Your task to perform on an android device: Go to Wikipedia Image 0: 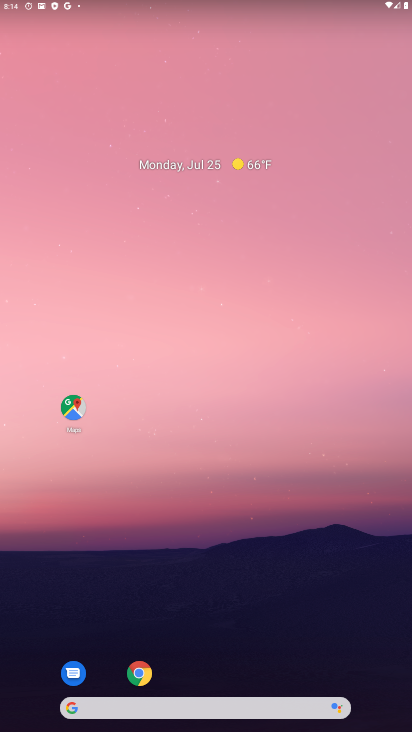
Step 0: drag from (276, 329) to (314, 240)
Your task to perform on an android device: Go to Wikipedia Image 1: 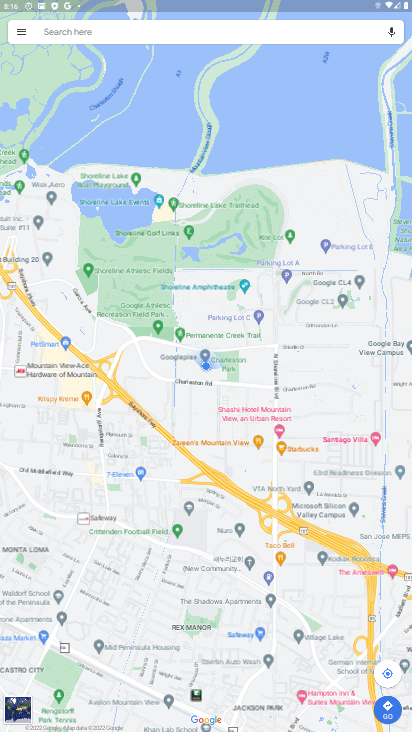
Step 1: drag from (276, 346) to (285, 698)
Your task to perform on an android device: Go to Wikipedia Image 2: 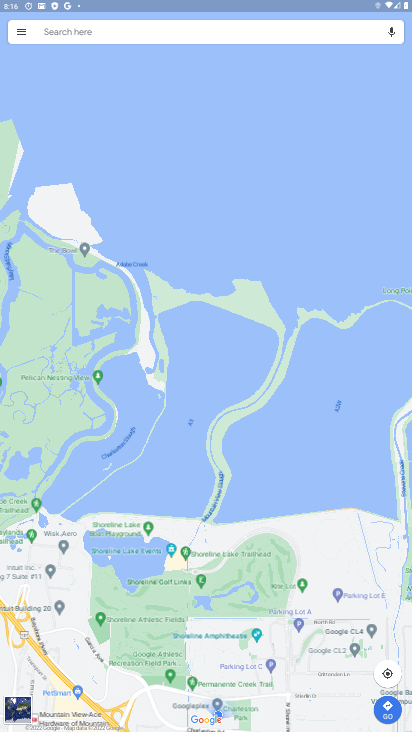
Step 2: press home button
Your task to perform on an android device: Go to Wikipedia Image 3: 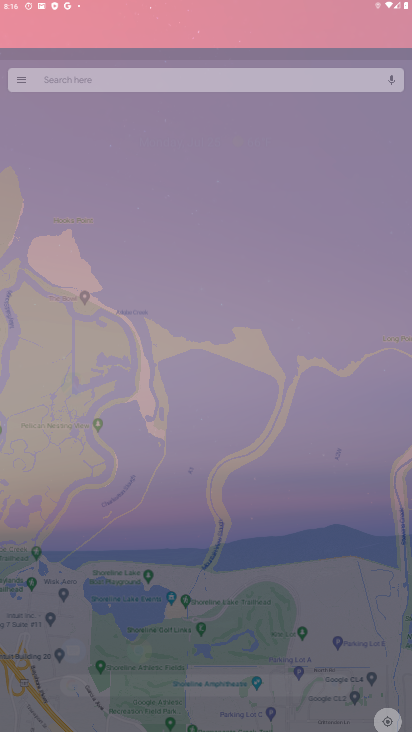
Step 3: drag from (123, 662) to (357, 1)
Your task to perform on an android device: Go to Wikipedia Image 4: 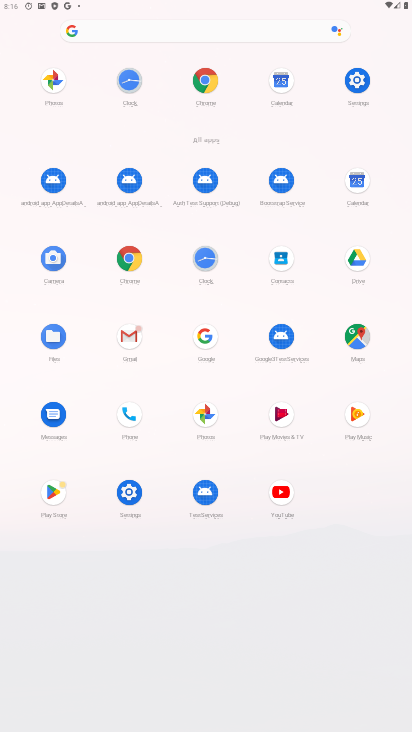
Step 4: click (138, 33)
Your task to perform on an android device: Go to Wikipedia Image 5: 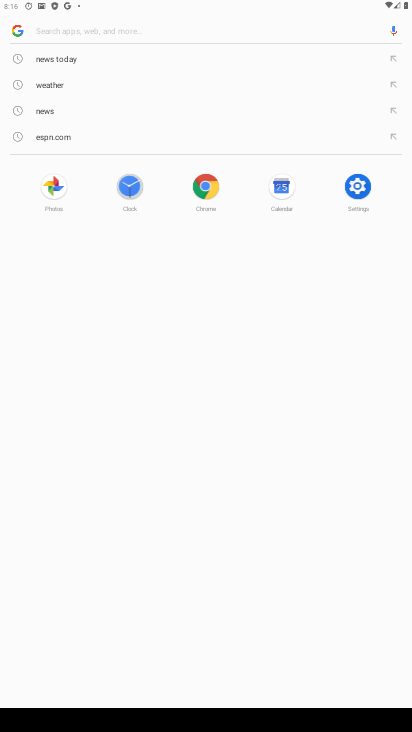
Step 5: drag from (246, 594) to (224, 256)
Your task to perform on an android device: Go to Wikipedia Image 6: 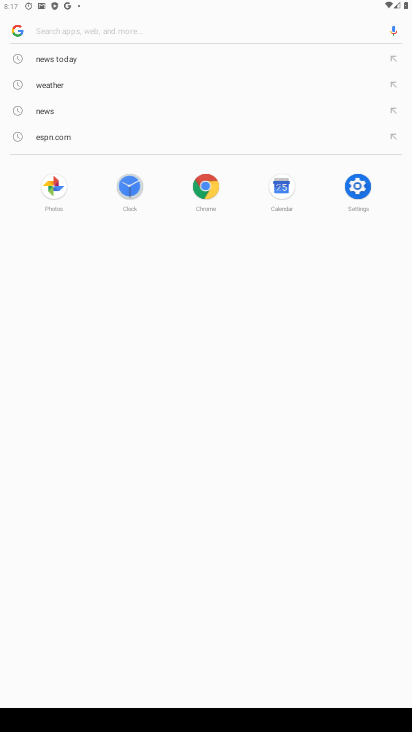
Step 6: type ""
Your task to perform on an android device: Go to Wikipedia Image 7: 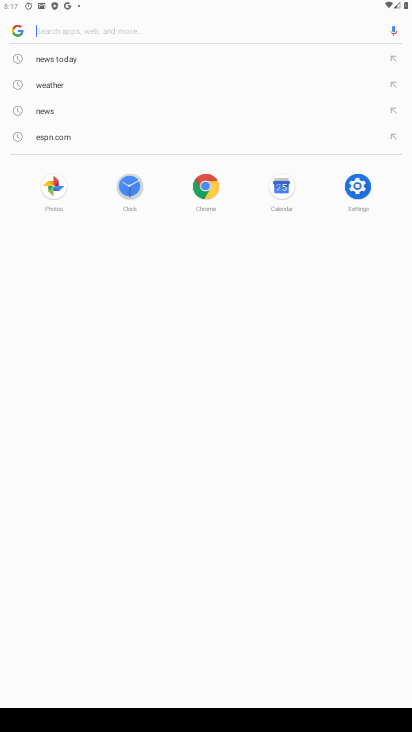
Step 7: type "Wikipedia"
Your task to perform on an android device: Go to Wikipedia Image 8: 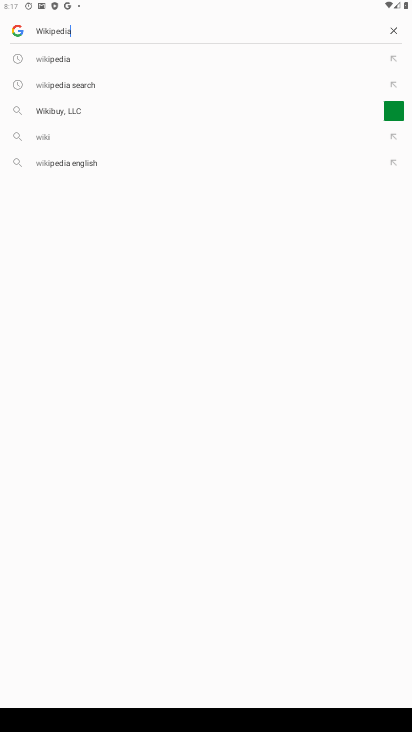
Step 8: type ""
Your task to perform on an android device: Go to Wikipedia Image 9: 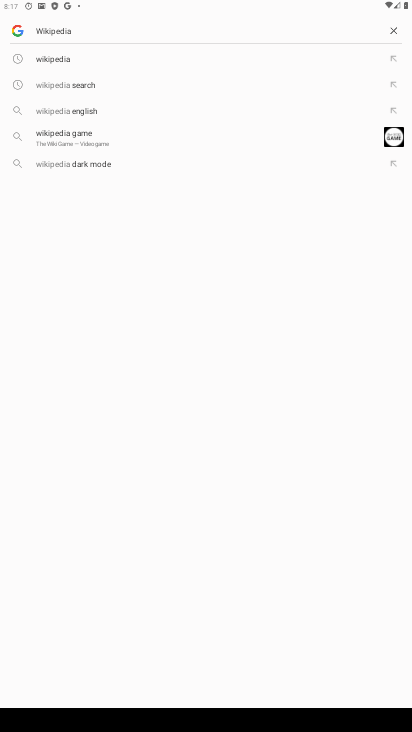
Step 9: click (54, 61)
Your task to perform on an android device: Go to Wikipedia Image 10: 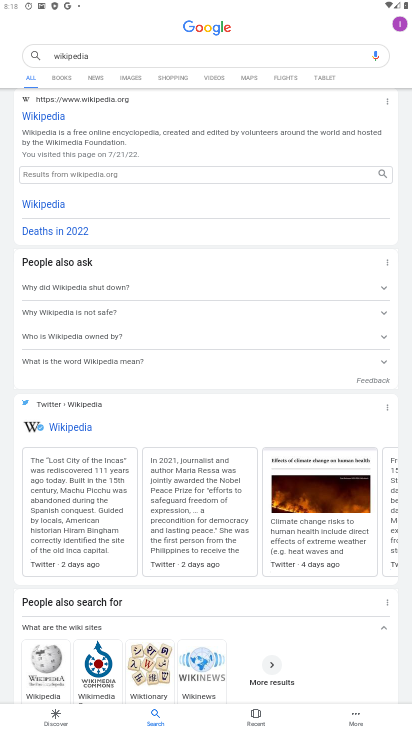
Step 10: click (33, 103)
Your task to perform on an android device: Go to Wikipedia Image 11: 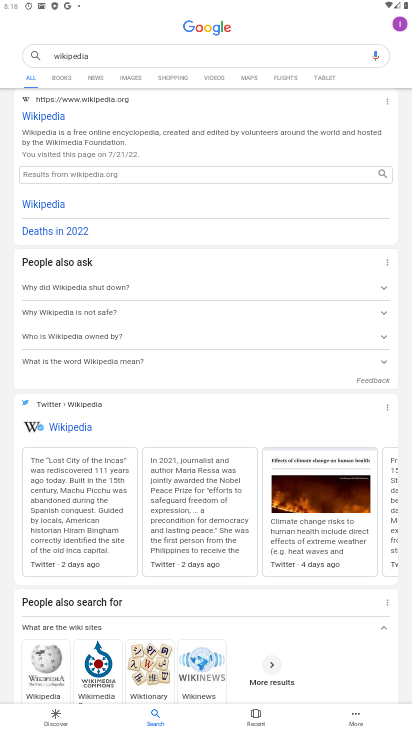
Step 11: task complete